Your task to perform on an android device: toggle javascript in the chrome app Image 0: 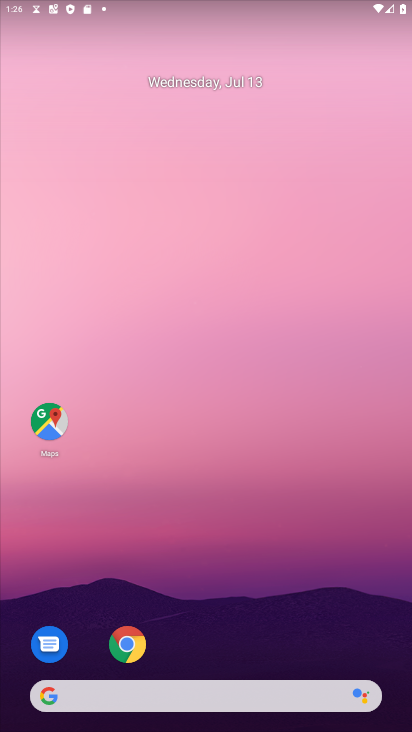
Step 0: press home button
Your task to perform on an android device: toggle javascript in the chrome app Image 1: 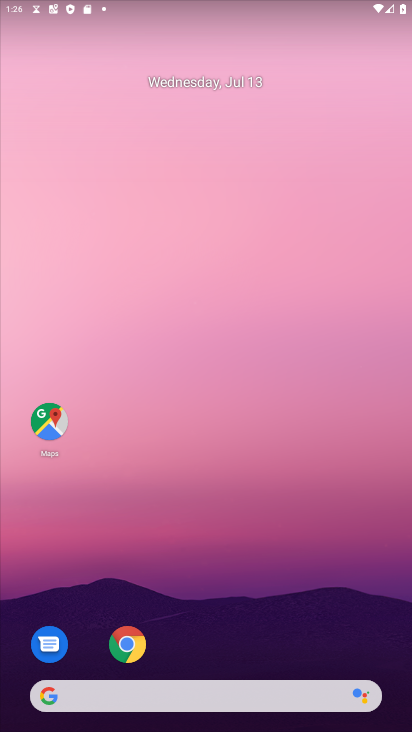
Step 1: click (133, 644)
Your task to perform on an android device: toggle javascript in the chrome app Image 2: 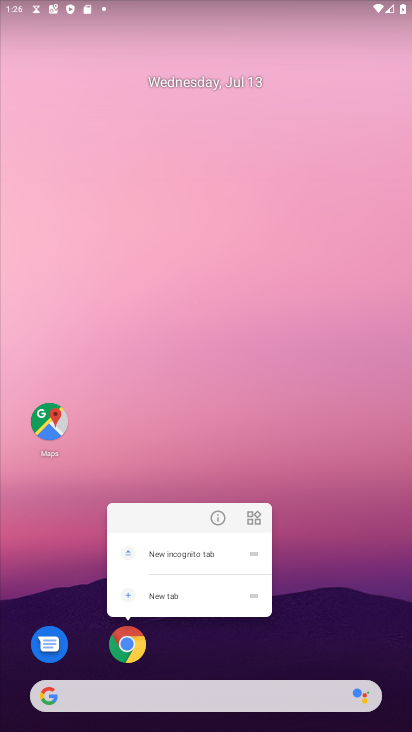
Step 2: click (116, 651)
Your task to perform on an android device: toggle javascript in the chrome app Image 3: 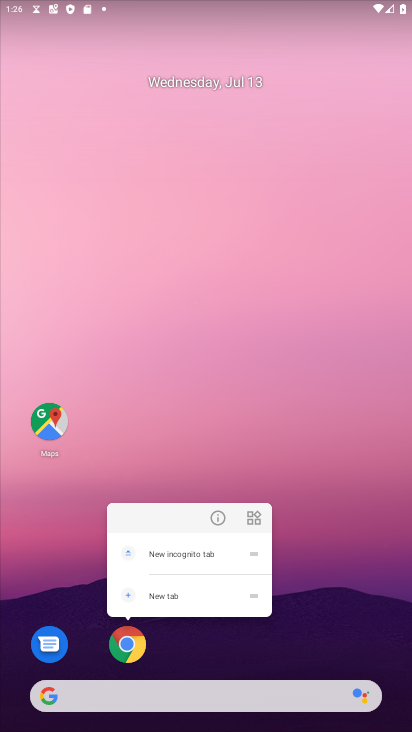
Step 3: click (116, 651)
Your task to perform on an android device: toggle javascript in the chrome app Image 4: 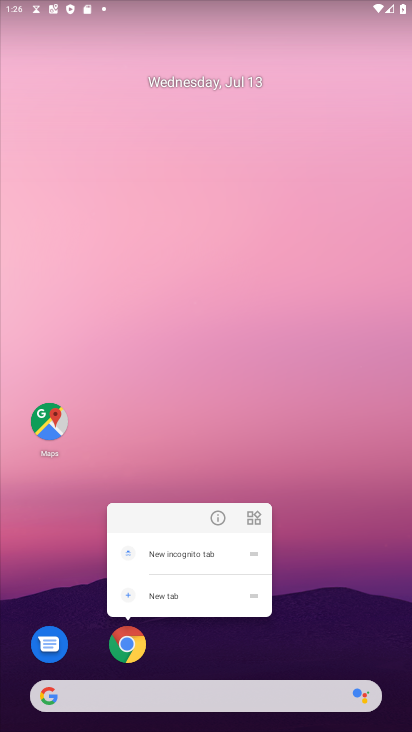
Step 4: click (125, 644)
Your task to perform on an android device: toggle javascript in the chrome app Image 5: 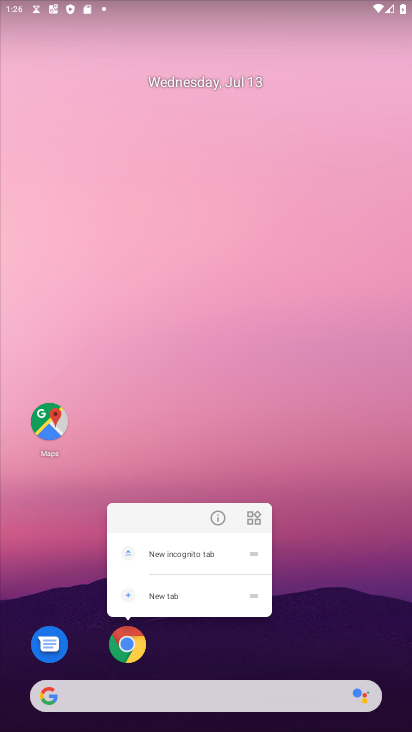
Step 5: click (118, 647)
Your task to perform on an android device: toggle javascript in the chrome app Image 6: 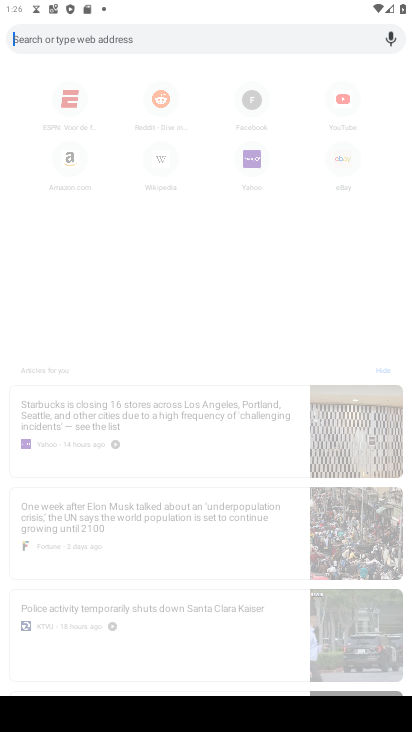
Step 6: press back button
Your task to perform on an android device: toggle javascript in the chrome app Image 7: 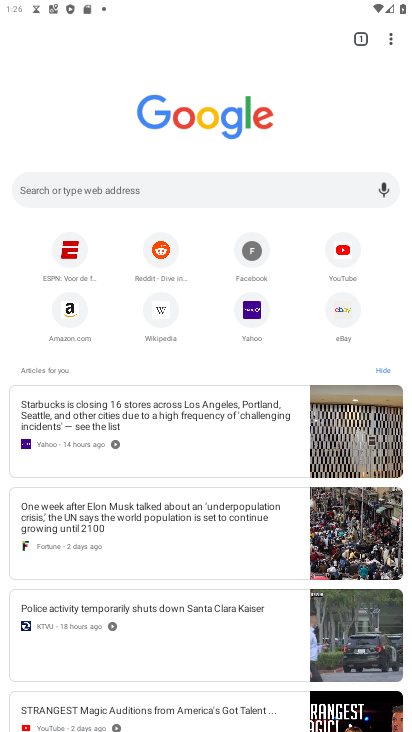
Step 7: drag from (393, 40) to (247, 332)
Your task to perform on an android device: toggle javascript in the chrome app Image 8: 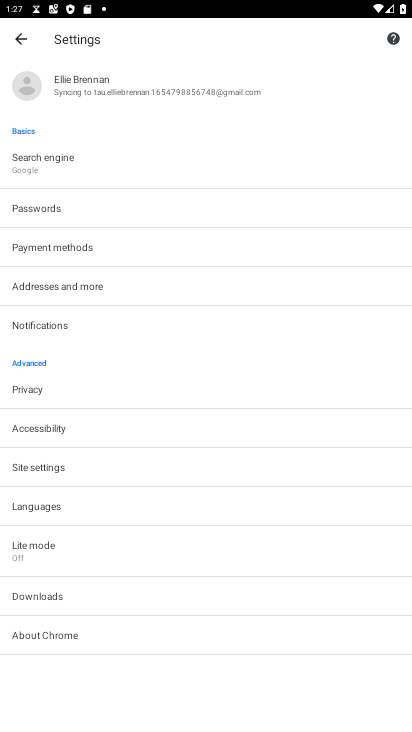
Step 8: click (50, 471)
Your task to perform on an android device: toggle javascript in the chrome app Image 9: 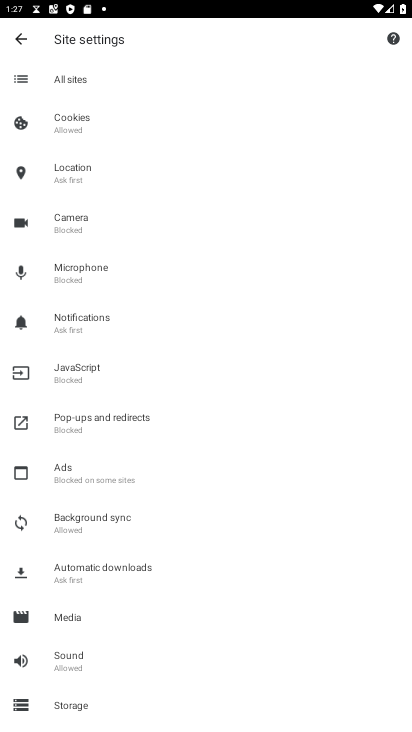
Step 9: click (72, 378)
Your task to perform on an android device: toggle javascript in the chrome app Image 10: 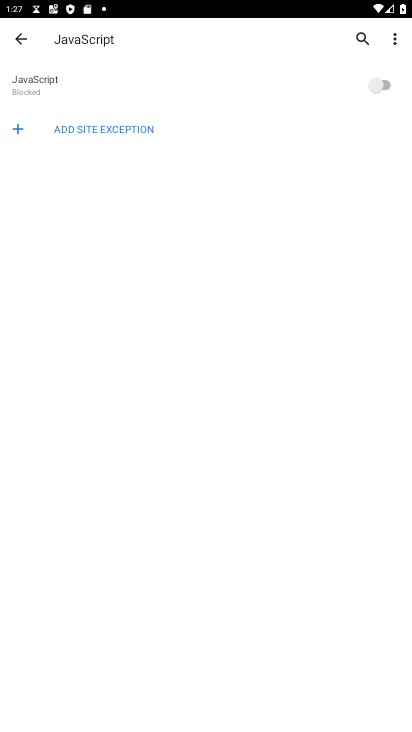
Step 10: click (386, 76)
Your task to perform on an android device: toggle javascript in the chrome app Image 11: 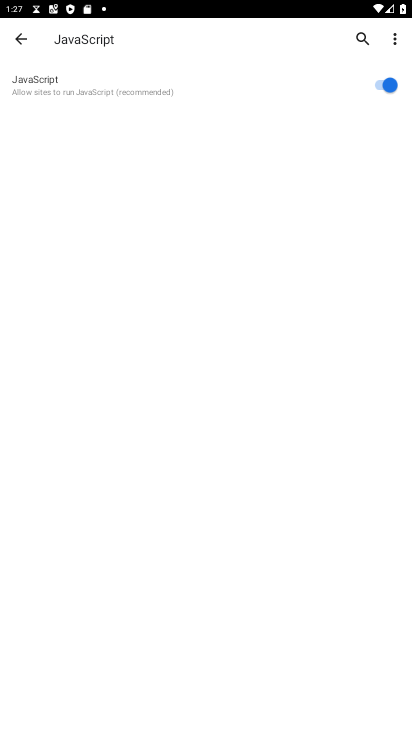
Step 11: task complete